Your task to perform on an android device: Open Wikipedia Image 0: 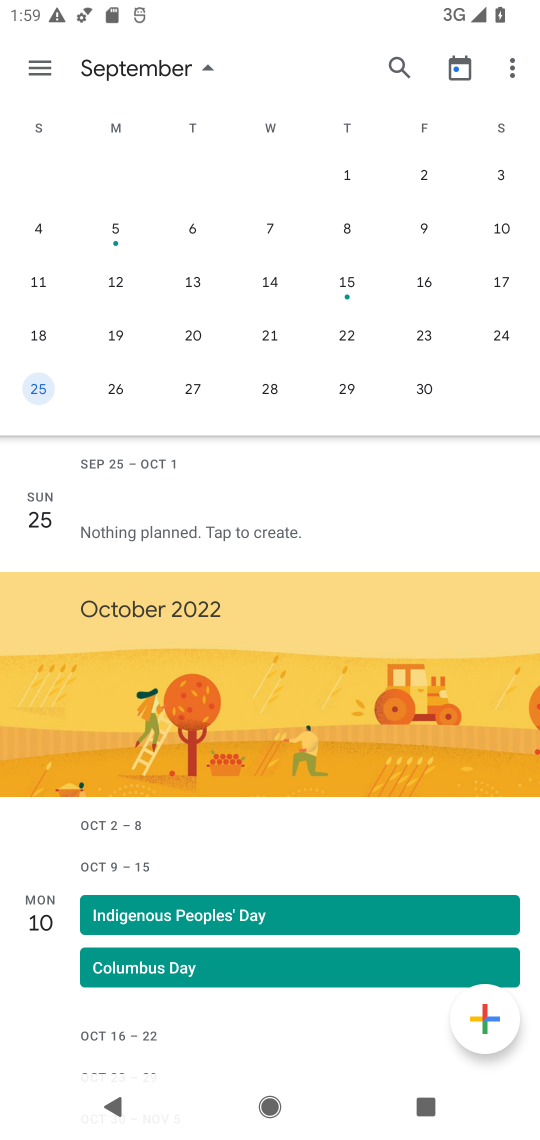
Step 0: press home button
Your task to perform on an android device: Open Wikipedia Image 1: 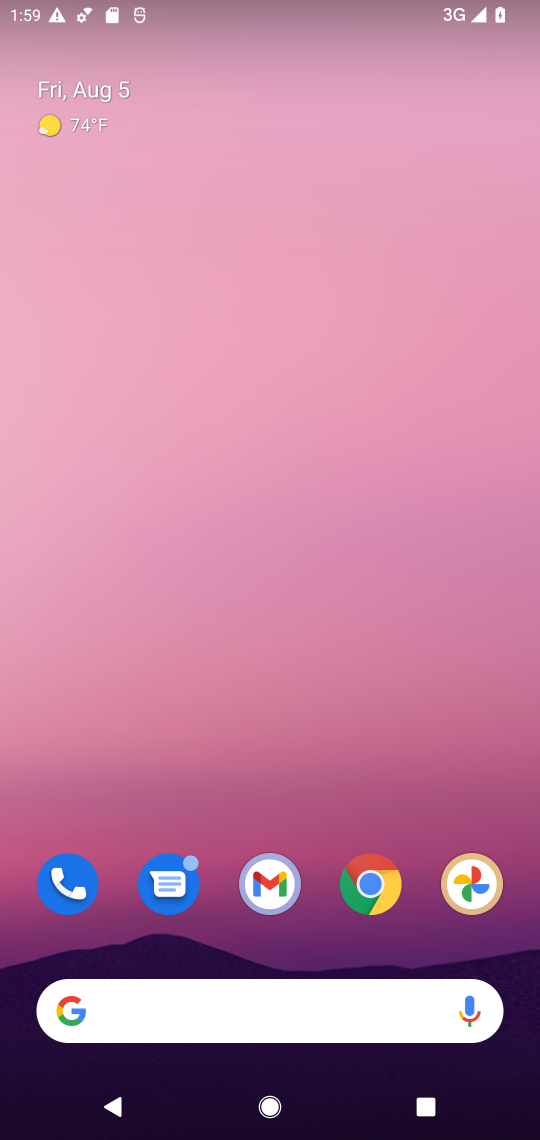
Step 1: drag from (393, 815) to (309, 5)
Your task to perform on an android device: Open Wikipedia Image 2: 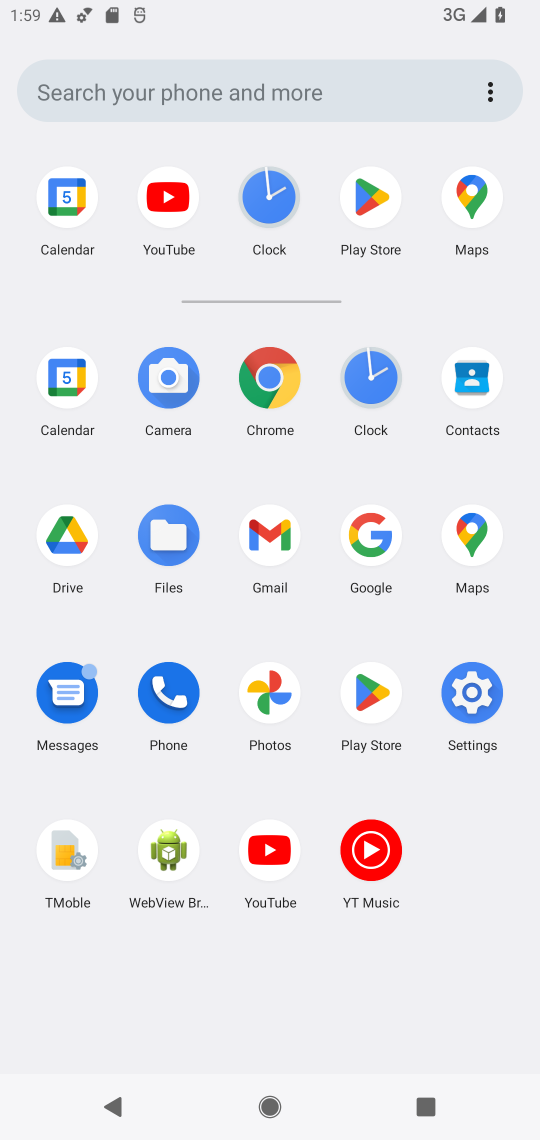
Step 2: click (357, 537)
Your task to perform on an android device: Open Wikipedia Image 3: 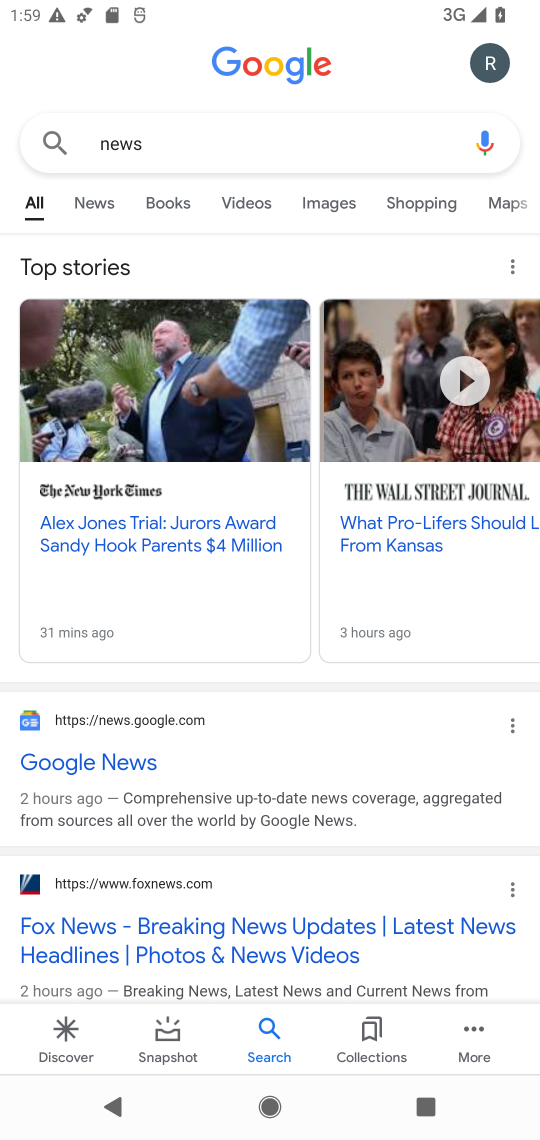
Step 3: press back button
Your task to perform on an android device: Open Wikipedia Image 4: 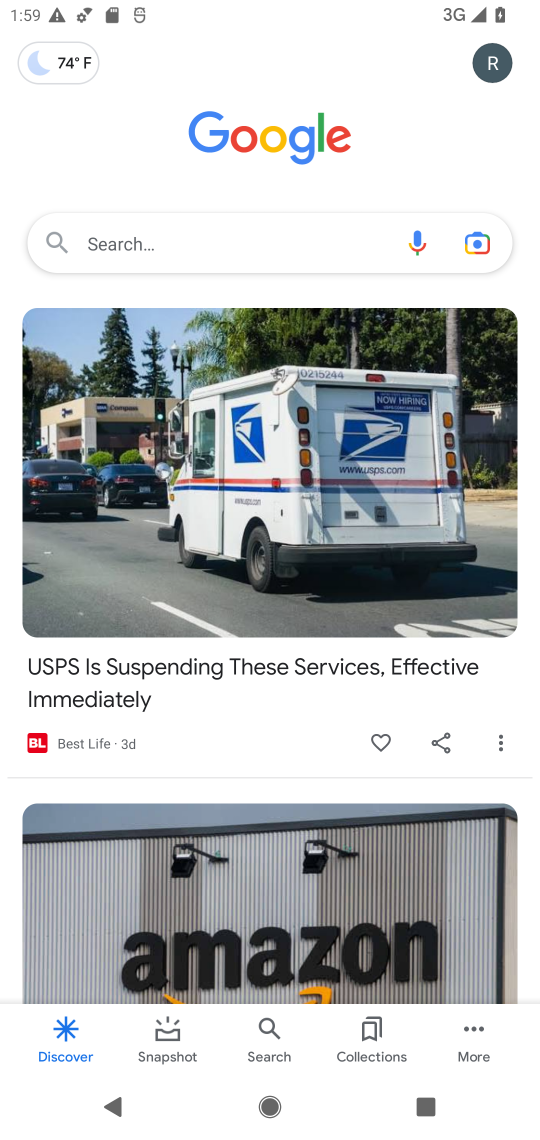
Step 4: click (110, 239)
Your task to perform on an android device: Open Wikipedia Image 5: 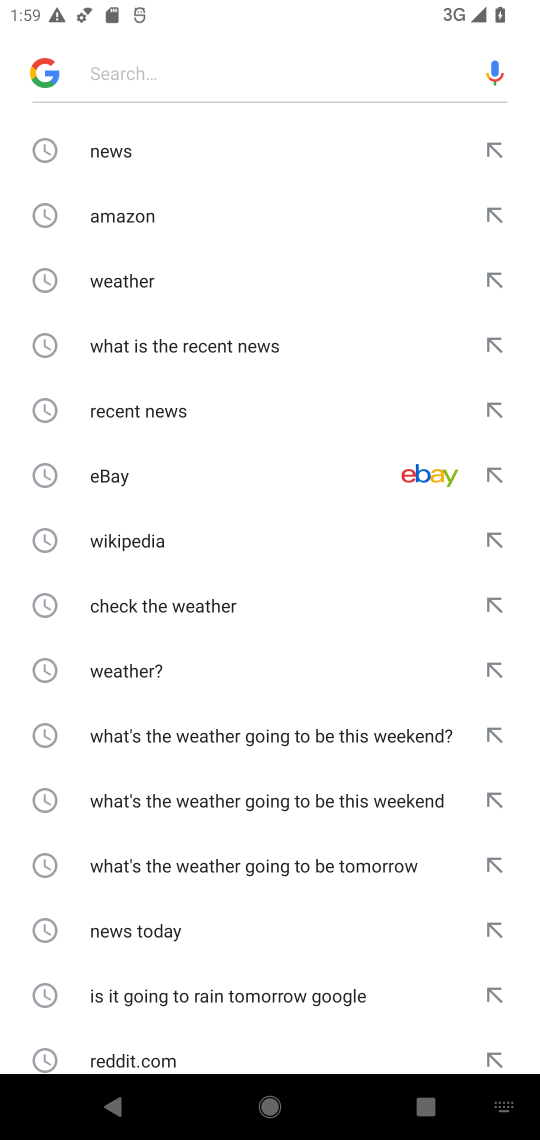
Step 5: click (137, 550)
Your task to perform on an android device: Open Wikipedia Image 6: 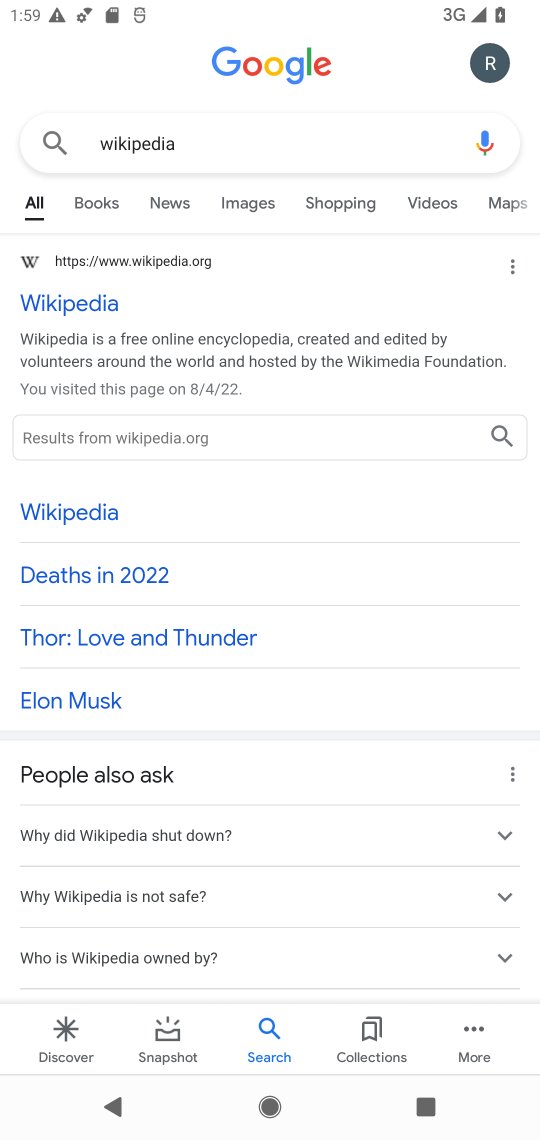
Step 6: task complete